Your task to perform on an android device: Open Chrome and go to the settings page Image 0: 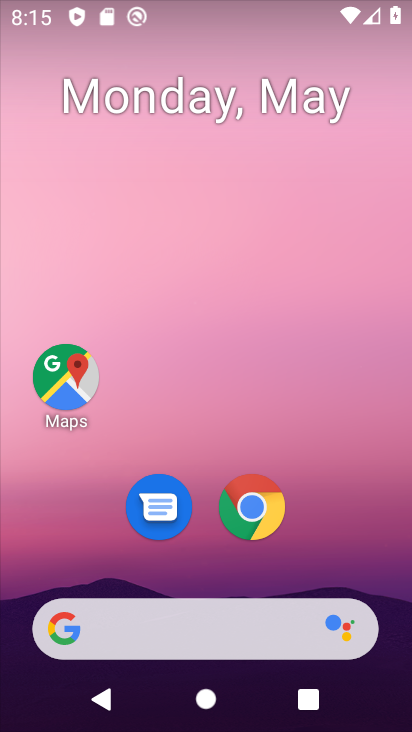
Step 0: click (259, 508)
Your task to perform on an android device: Open Chrome and go to the settings page Image 1: 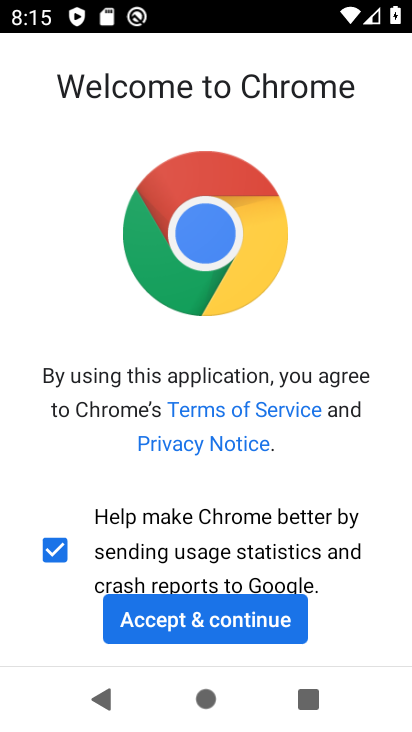
Step 1: click (203, 622)
Your task to perform on an android device: Open Chrome and go to the settings page Image 2: 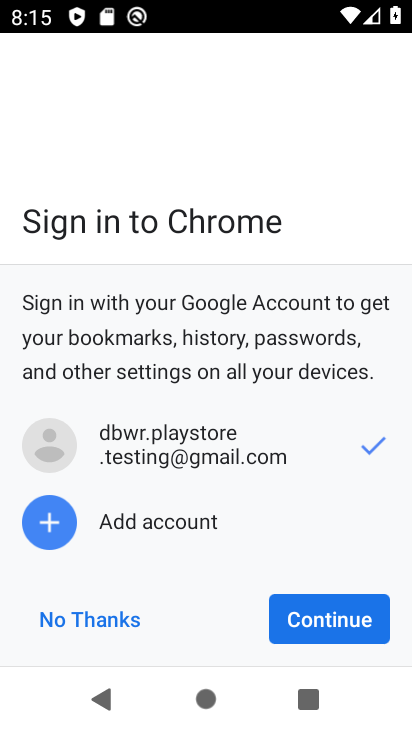
Step 2: click (287, 616)
Your task to perform on an android device: Open Chrome and go to the settings page Image 3: 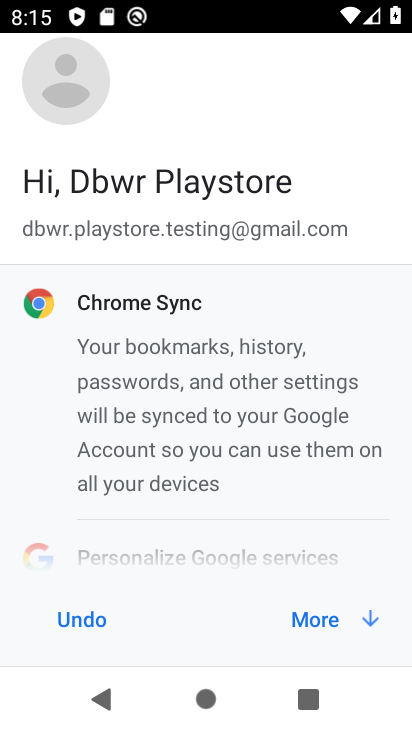
Step 3: click (287, 616)
Your task to perform on an android device: Open Chrome and go to the settings page Image 4: 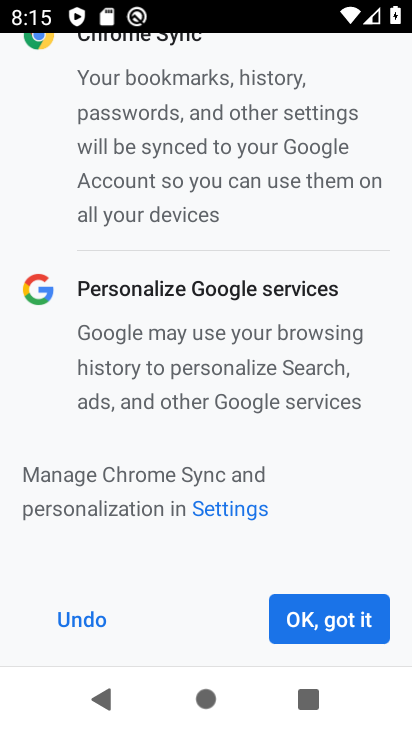
Step 4: click (287, 616)
Your task to perform on an android device: Open Chrome and go to the settings page Image 5: 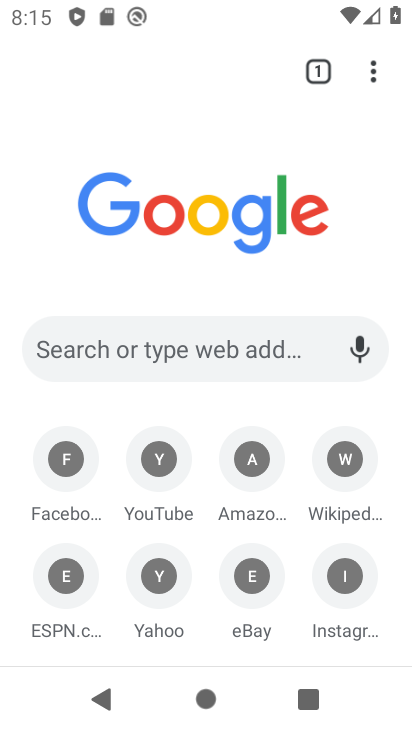
Step 5: click (376, 74)
Your task to perform on an android device: Open Chrome and go to the settings page Image 6: 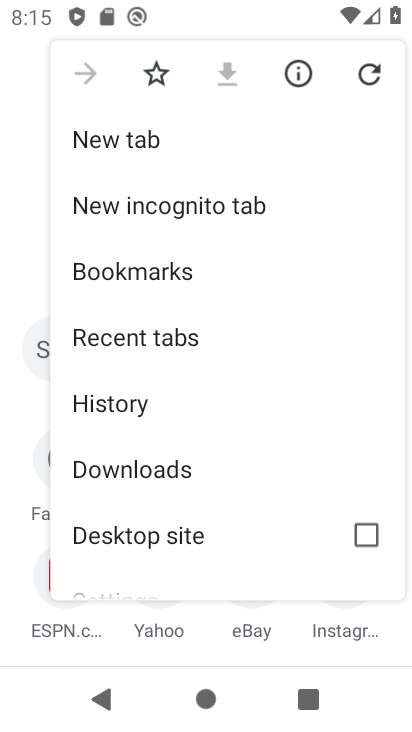
Step 6: drag from (189, 569) to (227, 158)
Your task to perform on an android device: Open Chrome and go to the settings page Image 7: 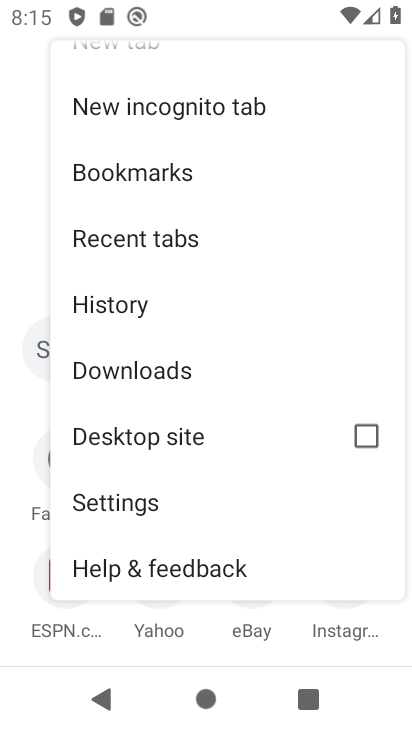
Step 7: click (145, 515)
Your task to perform on an android device: Open Chrome and go to the settings page Image 8: 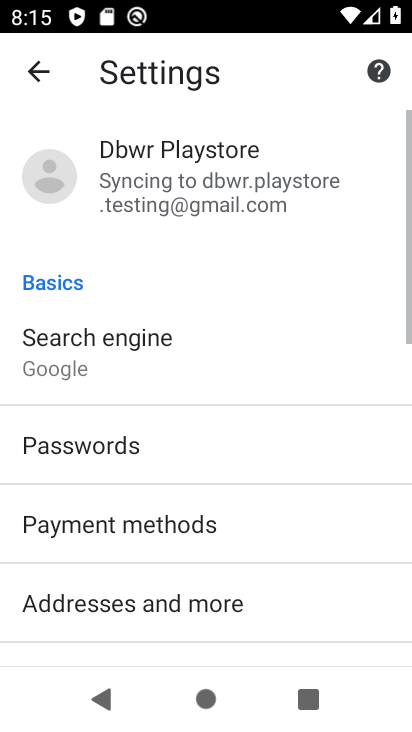
Step 8: task complete